Your task to perform on an android device: star an email in the gmail app Image 0: 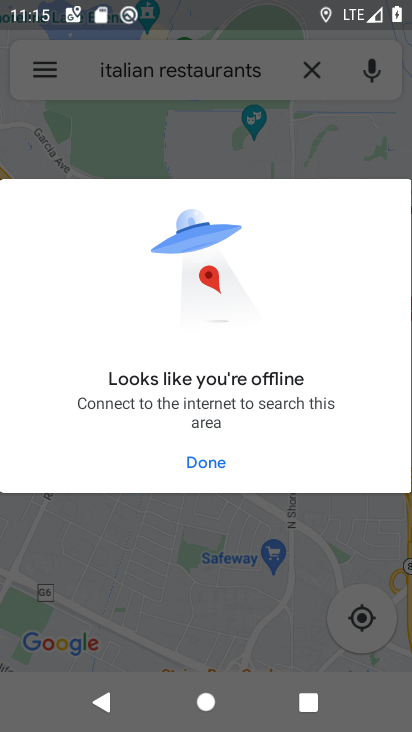
Step 0: press home button
Your task to perform on an android device: star an email in the gmail app Image 1: 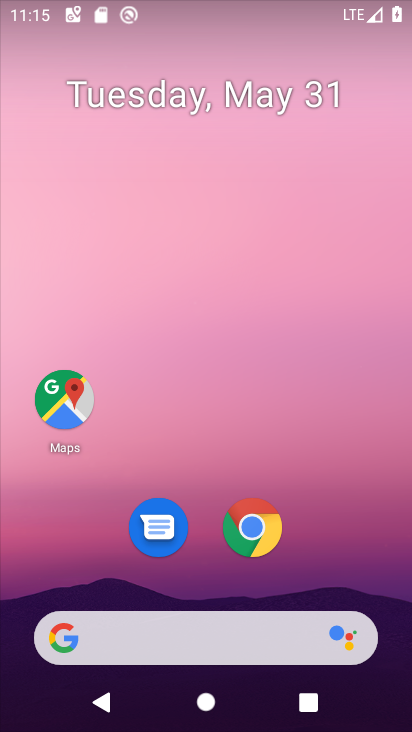
Step 1: drag from (312, 514) to (264, 19)
Your task to perform on an android device: star an email in the gmail app Image 2: 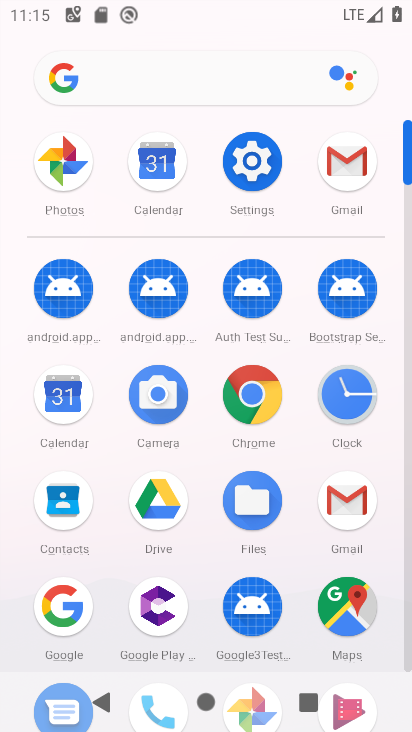
Step 2: click (345, 165)
Your task to perform on an android device: star an email in the gmail app Image 3: 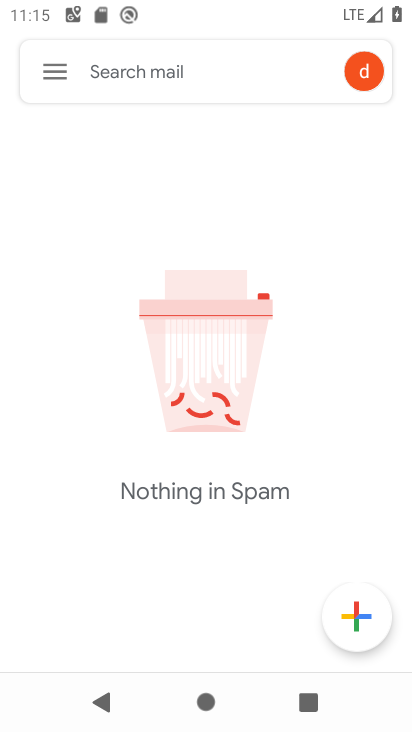
Step 3: click (50, 79)
Your task to perform on an android device: star an email in the gmail app Image 4: 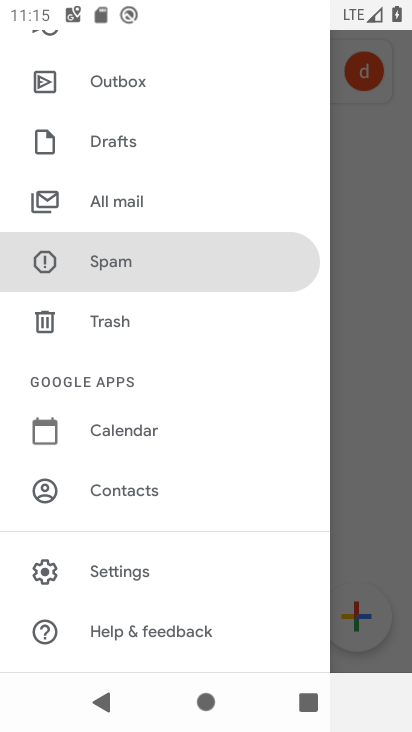
Step 4: click (112, 202)
Your task to perform on an android device: star an email in the gmail app Image 5: 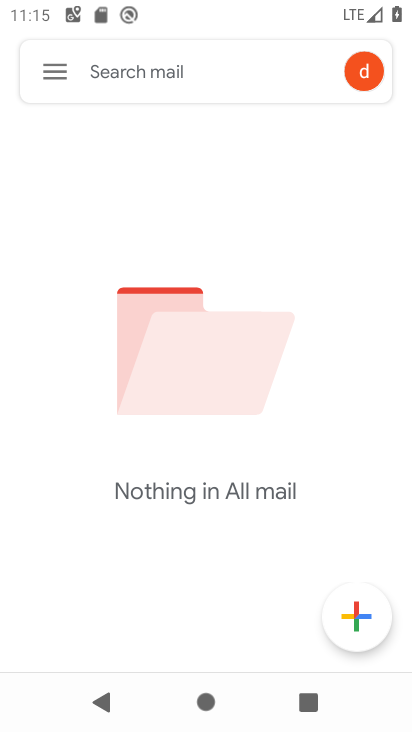
Step 5: task complete